Your task to perform on an android device: Open Amazon Image 0: 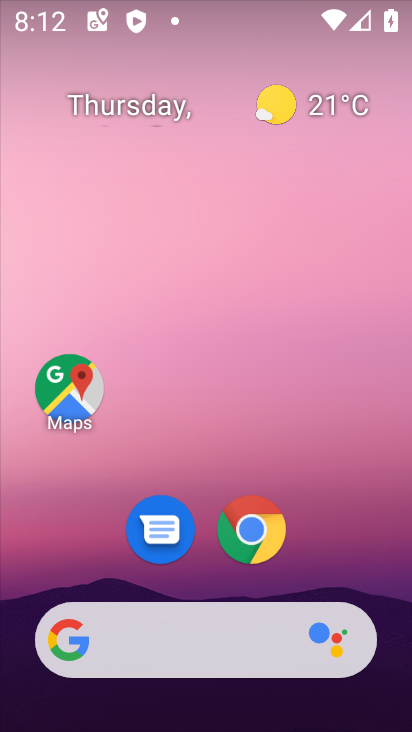
Step 0: click (247, 530)
Your task to perform on an android device: Open Amazon Image 1: 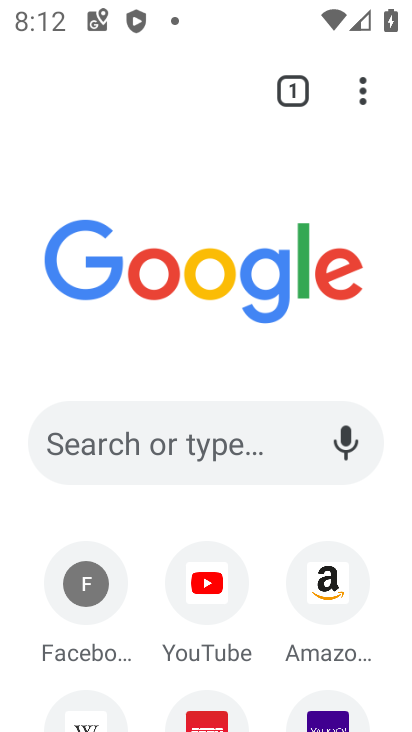
Step 1: click (331, 607)
Your task to perform on an android device: Open Amazon Image 2: 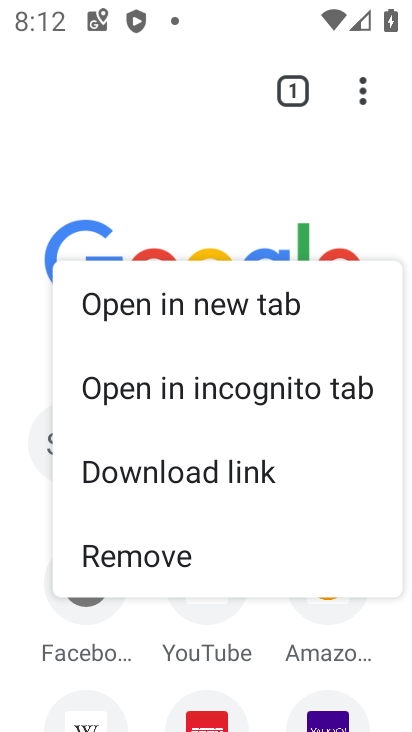
Step 2: click (331, 607)
Your task to perform on an android device: Open Amazon Image 3: 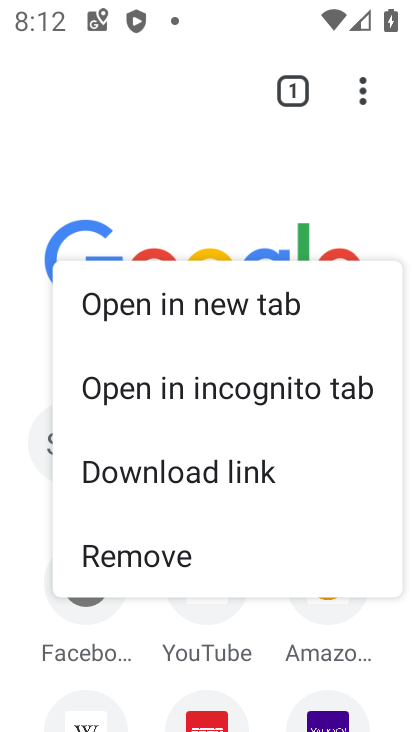
Step 3: click (331, 607)
Your task to perform on an android device: Open Amazon Image 4: 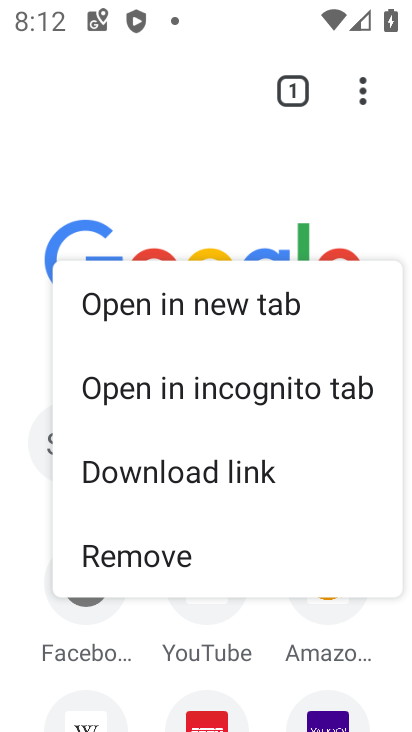
Step 4: click (331, 607)
Your task to perform on an android device: Open Amazon Image 5: 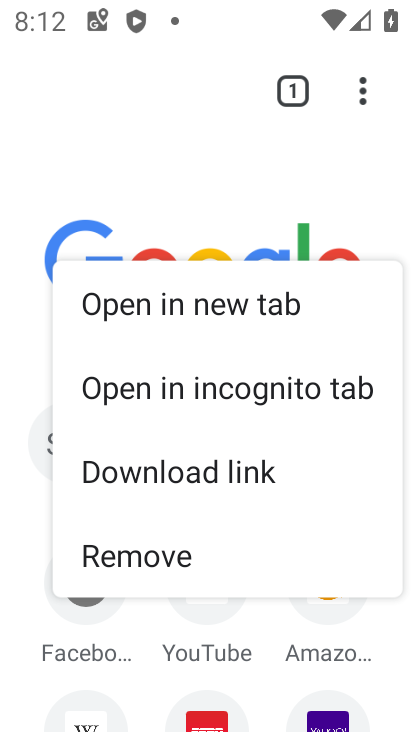
Step 5: click (331, 607)
Your task to perform on an android device: Open Amazon Image 6: 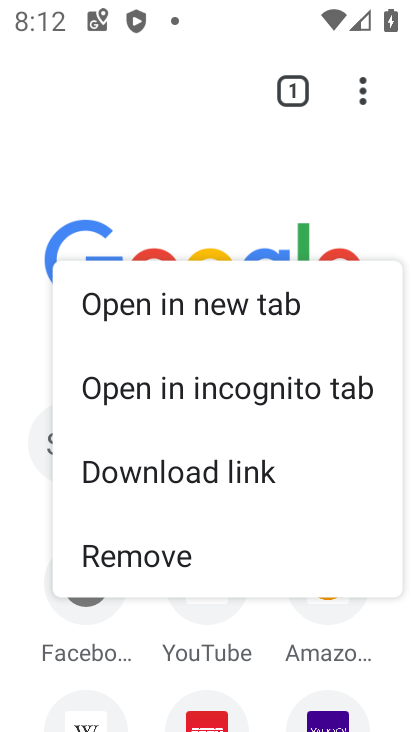
Step 6: click (331, 607)
Your task to perform on an android device: Open Amazon Image 7: 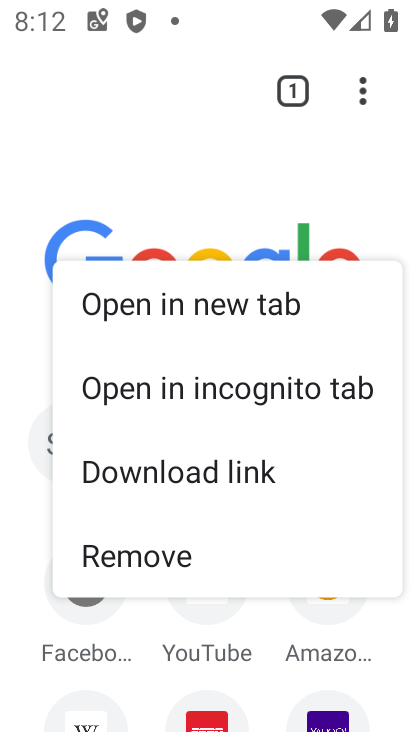
Step 7: click (331, 607)
Your task to perform on an android device: Open Amazon Image 8: 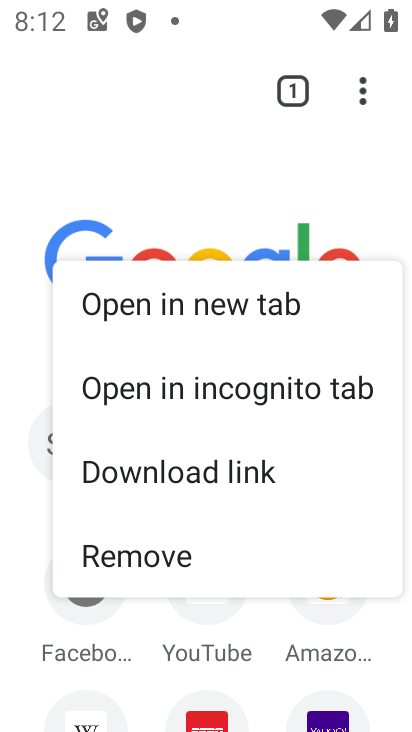
Step 8: click (329, 607)
Your task to perform on an android device: Open Amazon Image 9: 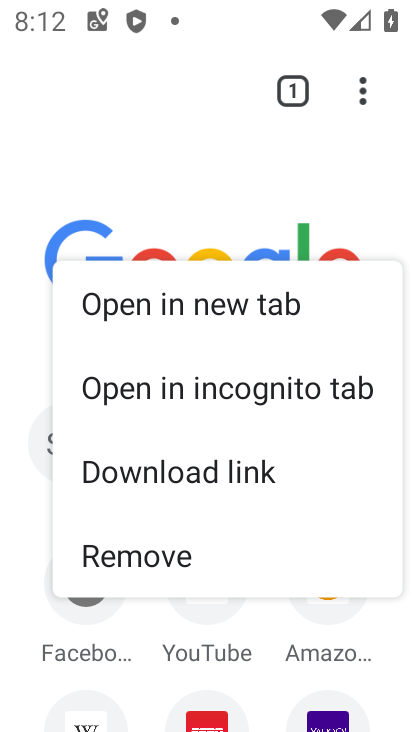
Step 9: click (329, 607)
Your task to perform on an android device: Open Amazon Image 10: 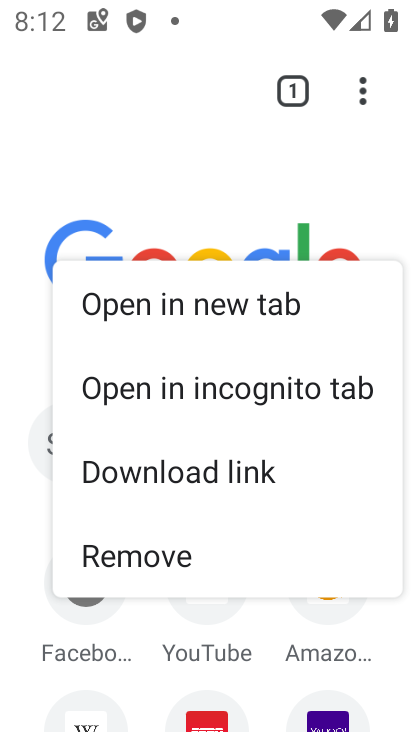
Step 10: click (329, 607)
Your task to perform on an android device: Open Amazon Image 11: 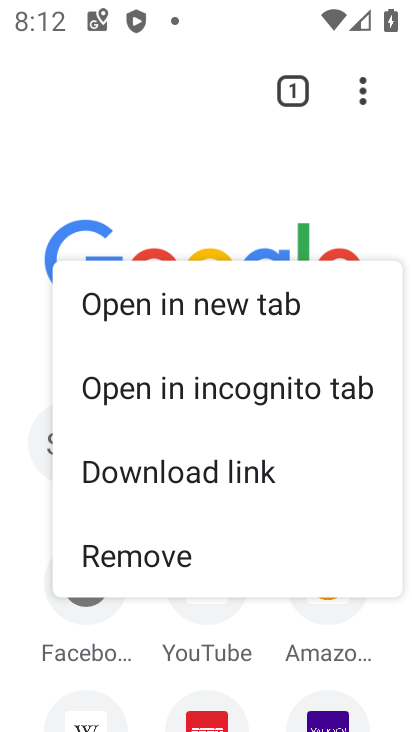
Step 11: click (329, 607)
Your task to perform on an android device: Open Amazon Image 12: 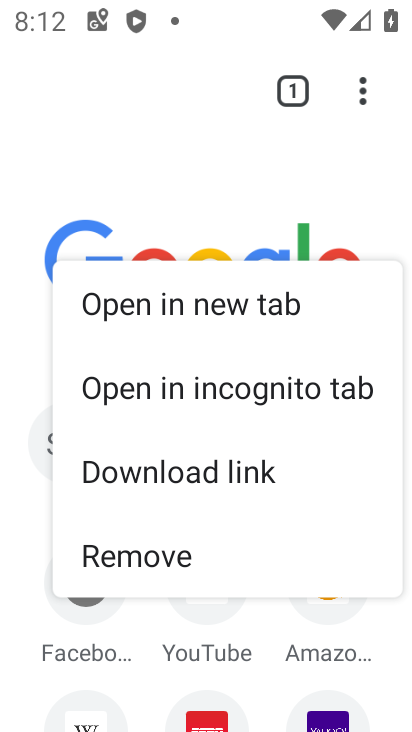
Step 12: click (195, 134)
Your task to perform on an android device: Open Amazon Image 13: 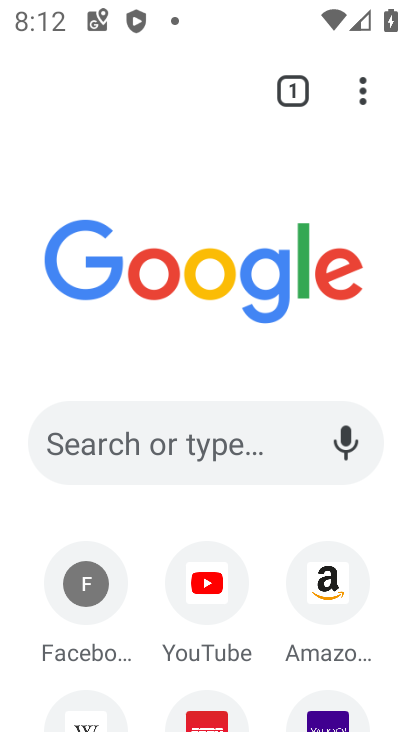
Step 13: click (337, 586)
Your task to perform on an android device: Open Amazon Image 14: 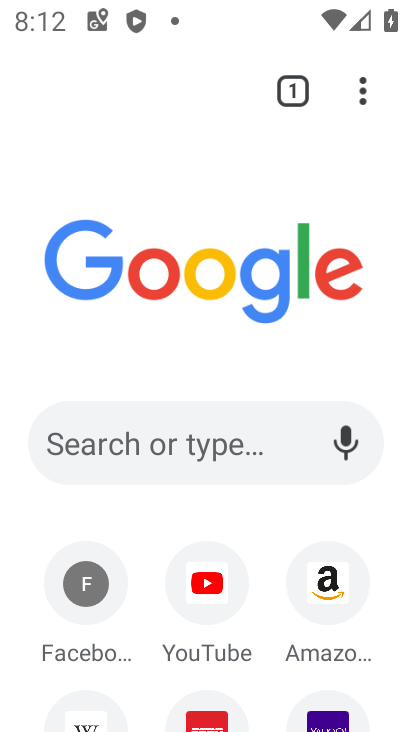
Step 14: click (337, 586)
Your task to perform on an android device: Open Amazon Image 15: 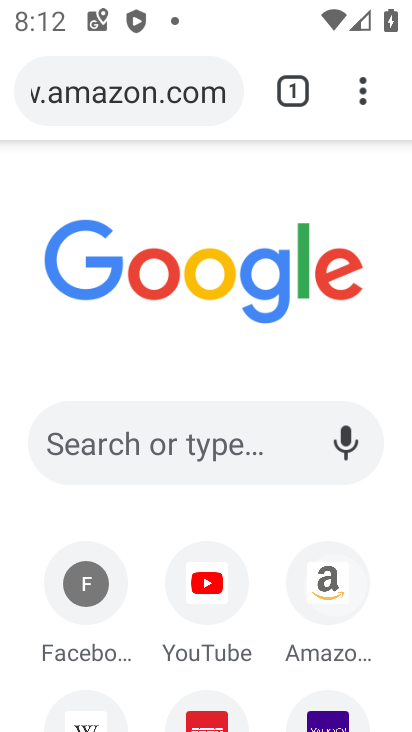
Step 15: click (337, 586)
Your task to perform on an android device: Open Amazon Image 16: 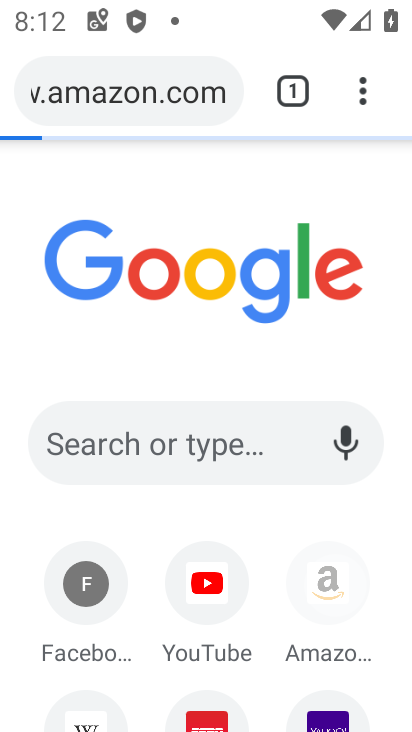
Step 16: click (337, 586)
Your task to perform on an android device: Open Amazon Image 17: 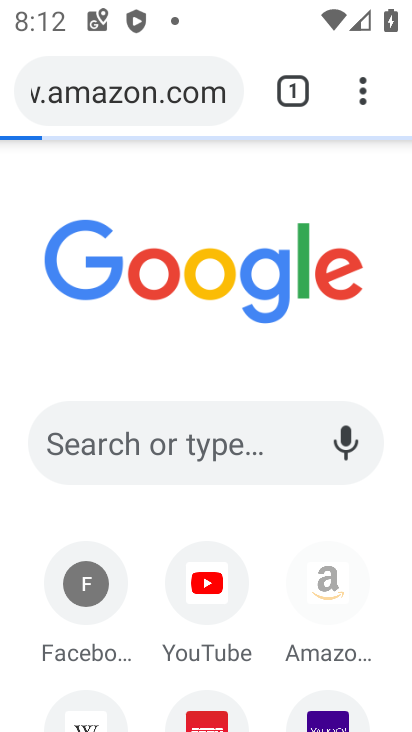
Step 17: click (337, 586)
Your task to perform on an android device: Open Amazon Image 18: 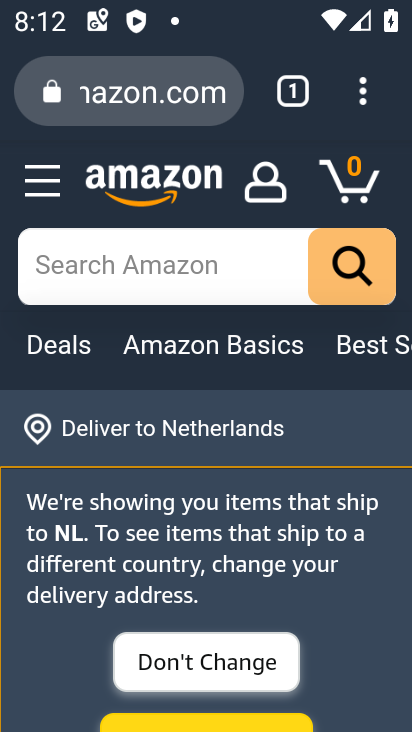
Step 18: task complete